Your task to perform on an android device: open a bookmark in the chrome app Image 0: 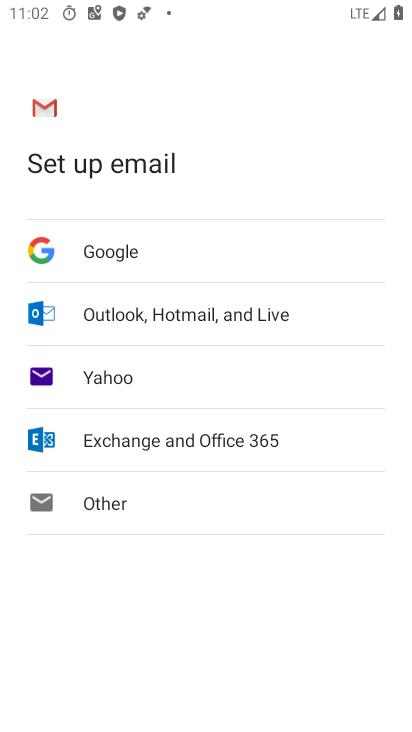
Step 0: press home button
Your task to perform on an android device: open a bookmark in the chrome app Image 1: 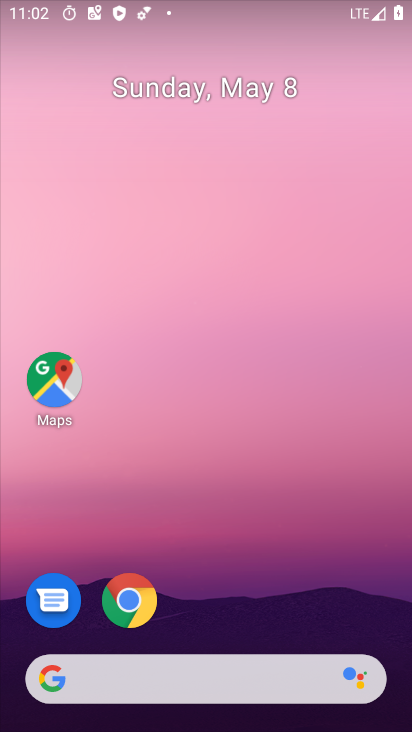
Step 1: click (106, 596)
Your task to perform on an android device: open a bookmark in the chrome app Image 2: 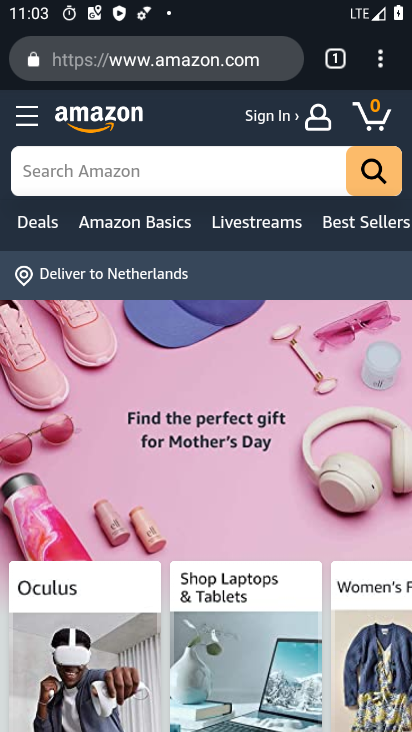
Step 2: click (377, 58)
Your task to perform on an android device: open a bookmark in the chrome app Image 3: 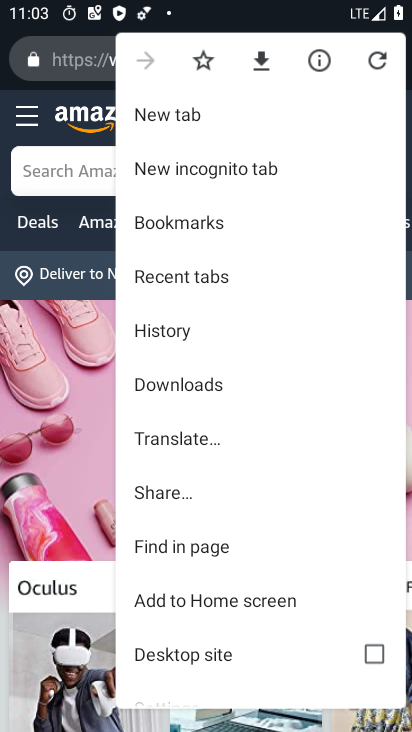
Step 3: click (233, 234)
Your task to perform on an android device: open a bookmark in the chrome app Image 4: 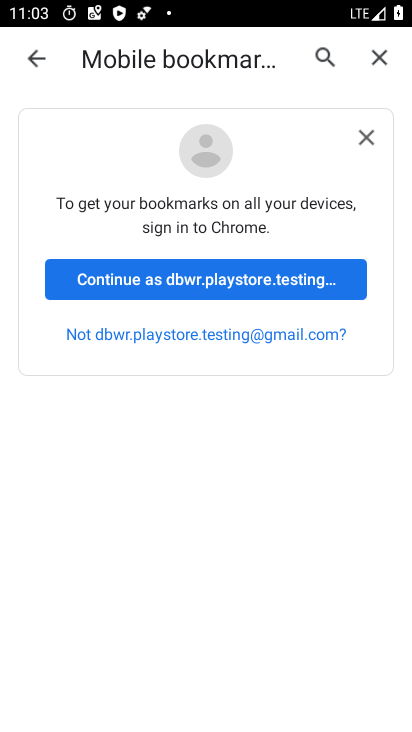
Step 4: click (370, 135)
Your task to perform on an android device: open a bookmark in the chrome app Image 5: 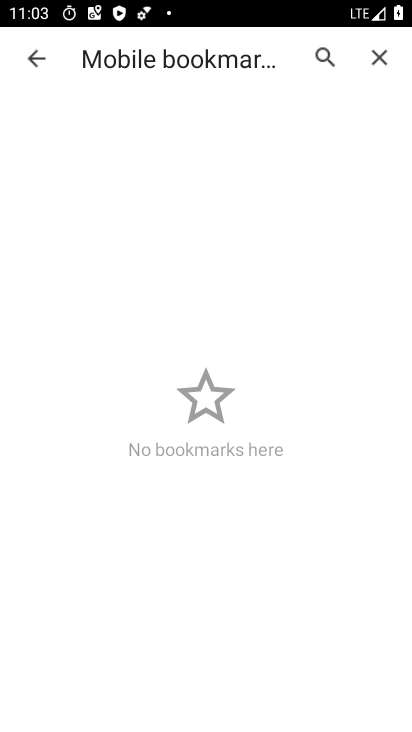
Step 5: task complete